Your task to perform on an android device: Open Google Maps and go to "Timeline" Image 0: 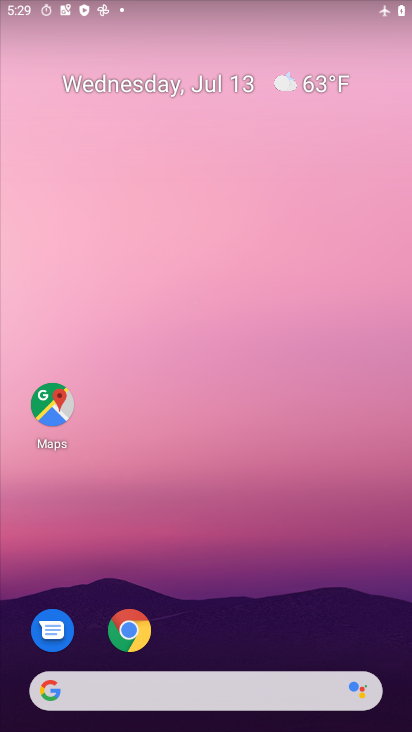
Step 0: press home button
Your task to perform on an android device: Open Google Maps and go to "Timeline" Image 1: 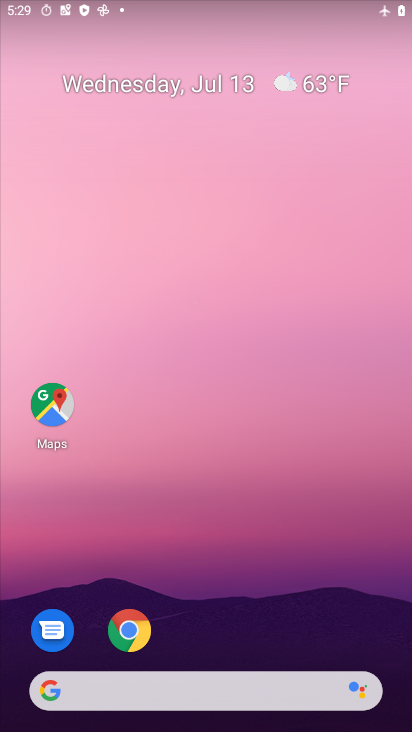
Step 1: drag from (287, 565) to (219, 122)
Your task to perform on an android device: Open Google Maps and go to "Timeline" Image 2: 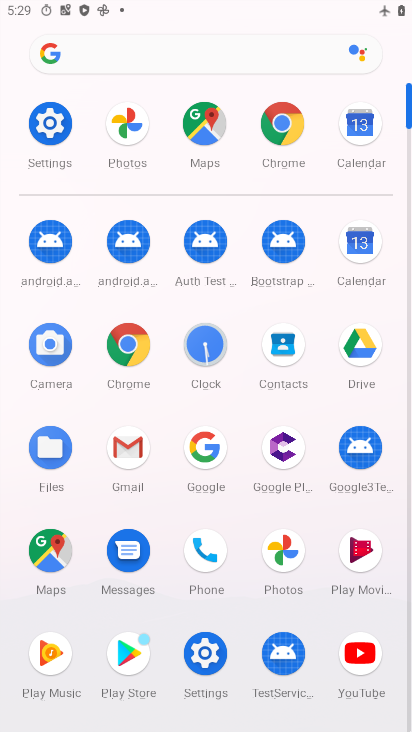
Step 2: click (198, 132)
Your task to perform on an android device: Open Google Maps and go to "Timeline" Image 3: 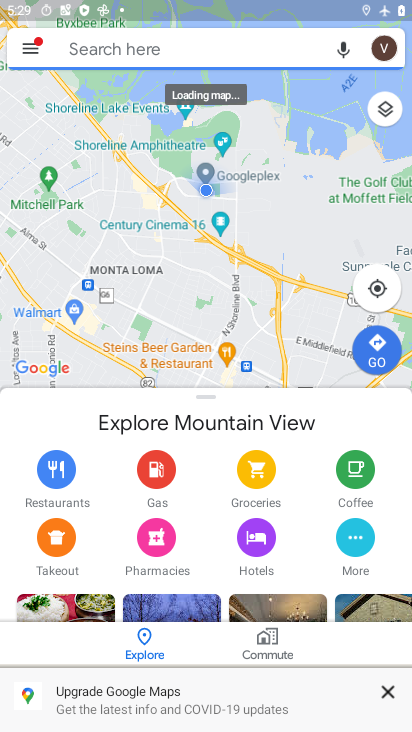
Step 3: click (38, 48)
Your task to perform on an android device: Open Google Maps and go to "Timeline" Image 4: 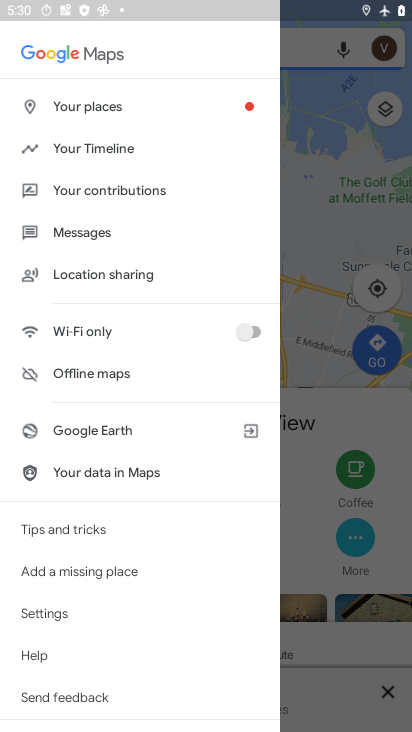
Step 4: click (90, 153)
Your task to perform on an android device: Open Google Maps and go to "Timeline" Image 5: 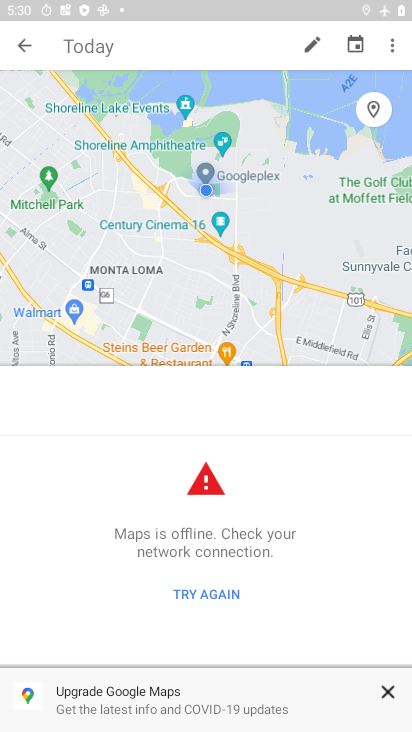
Step 5: click (213, 594)
Your task to perform on an android device: Open Google Maps and go to "Timeline" Image 6: 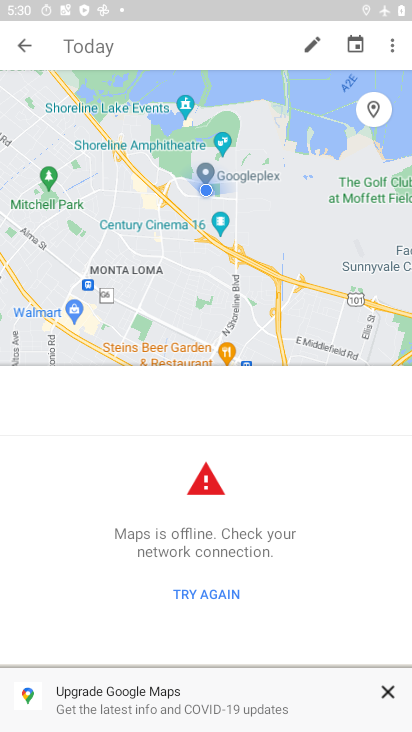
Step 6: task complete